Your task to perform on an android device: Show me the alarms in the clock app Image 0: 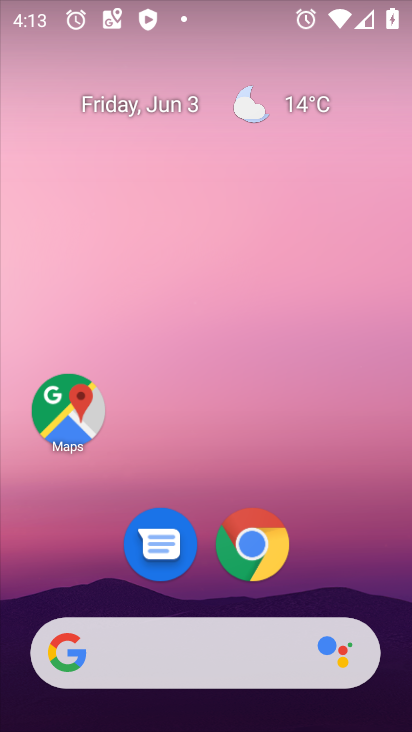
Step 0: drag from (401, 650) to (318, 129)
Your task to perform on an android device: Show me the alarms in the clock app Image 1: 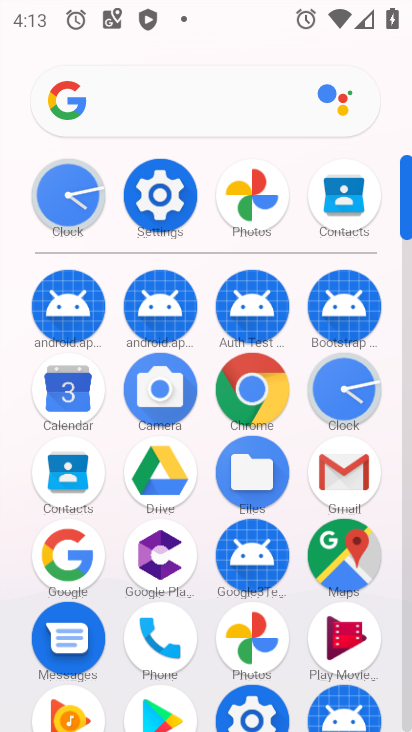
Step 1: click (343, 388)
Your task to perform on an android device: Show me the alarms in the clock app Image 2: 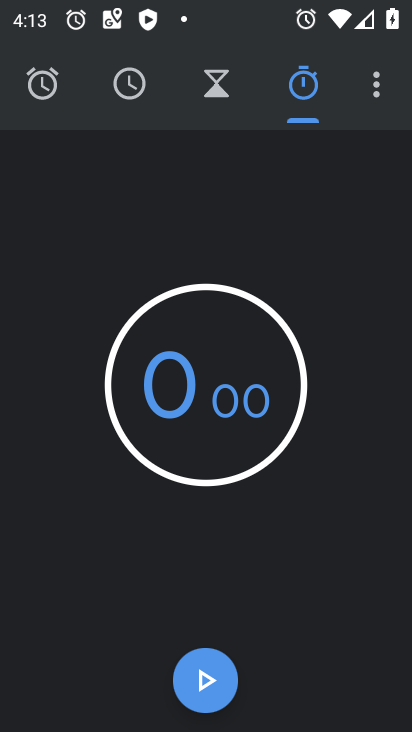
Step 2: click (370, 90)
Your task to perform on an android device: Show me the alarms in the clock app Image 3: 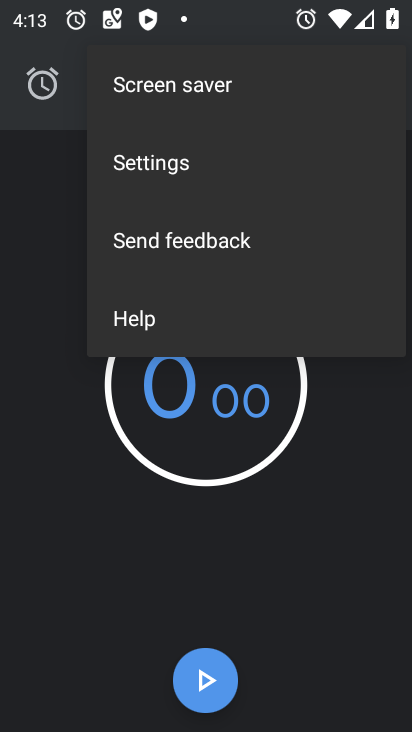
Step 3: click (35, 78)
Your task to perform on an android device: Show me the alarms in the clock app Image 4: 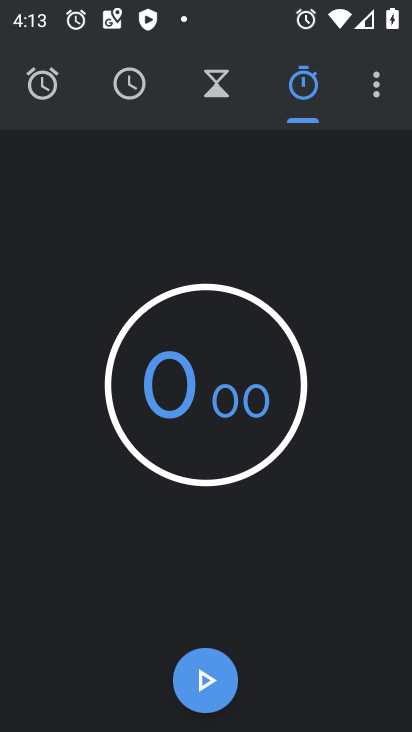
Step 4: click (35, 78)
Your task to perform on an android device: Show me the alarms in the clock app Image 5: 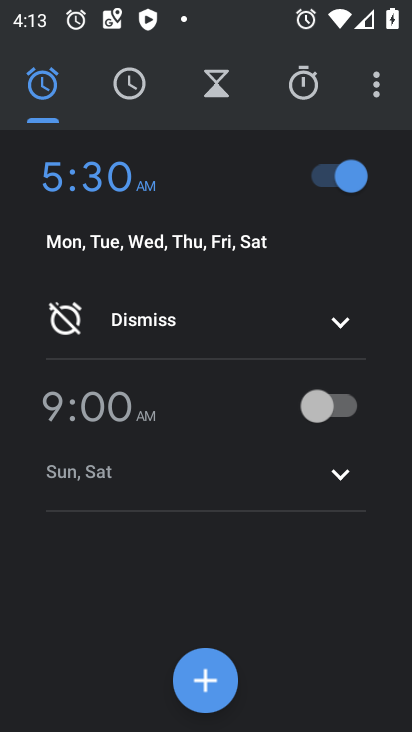
Step 5: task complete